Your task to perform on an android device: Go to CNN.com Image 0: 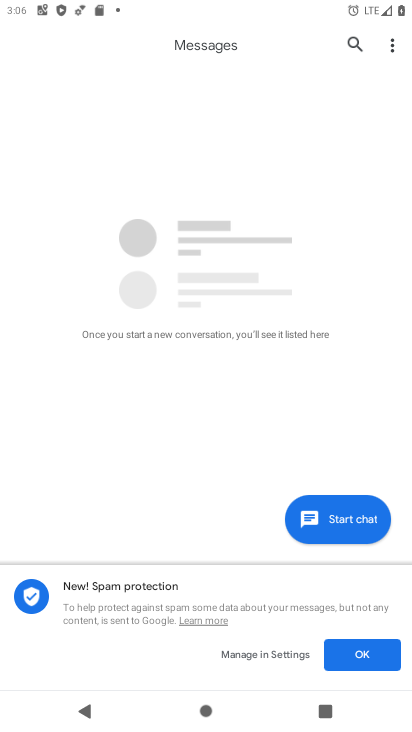
Step 0: press home button
Your task to perform on an android device: Go to CNN.com Image 1: 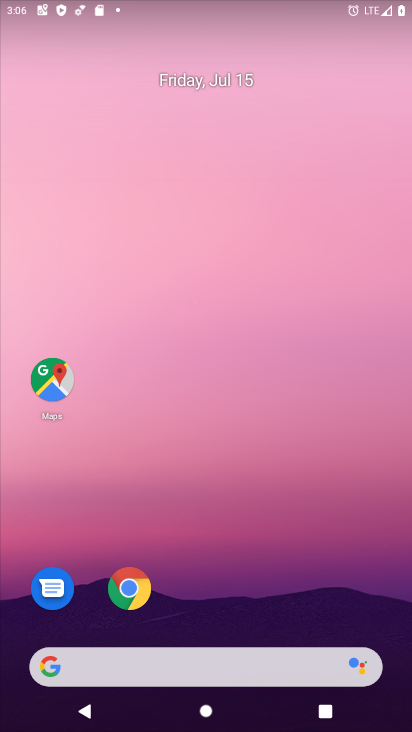
Step 1: click (130, 590)
Your task to perform on an android device: Go to CNN.com Image 2: 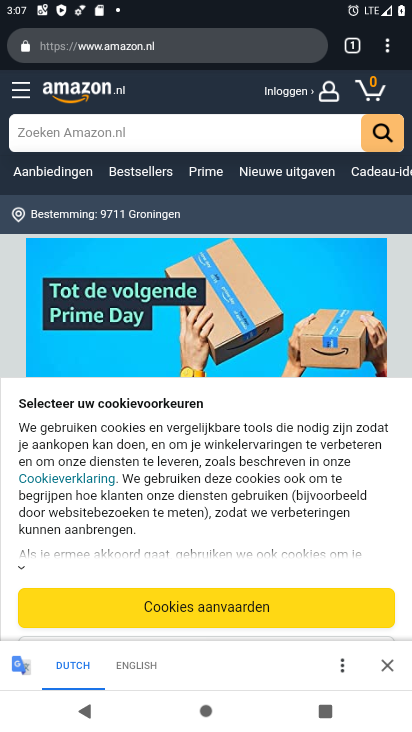
Step 2: click (188, 40)
Your task to perform on an android device: Go to CNN.com Image 3: 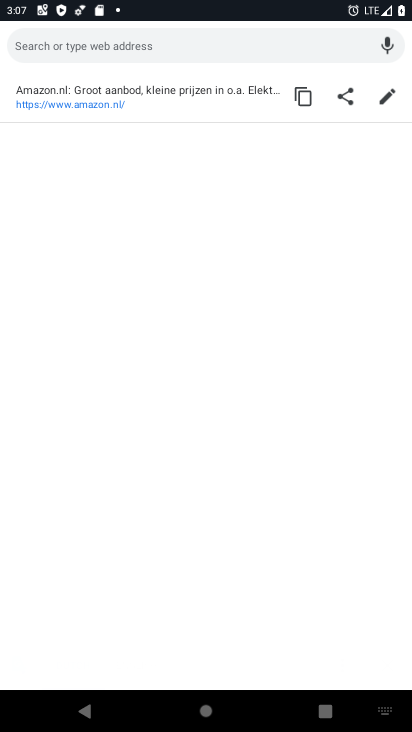
Step 3: type "CNN.com"
Your task to perform on an android device: Go to CNN.com Image 4: 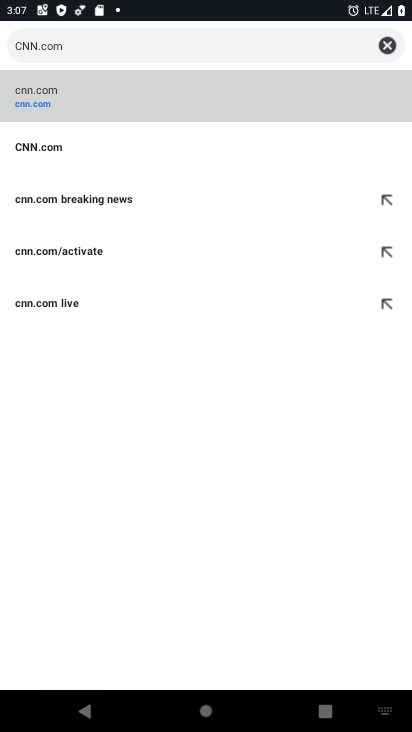
Step 4: click (46, 149)
Your task to perform on an android device: Go to CNN.com Image 5: 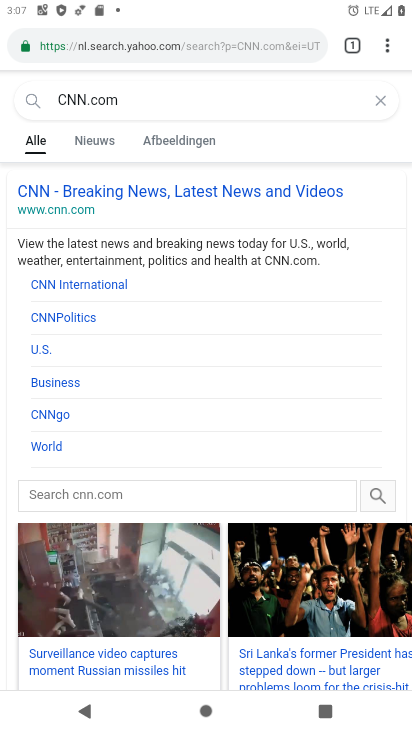
Step 5: click (69, 191)
Your task to perform on an android device: Go to CNN.com Image 6: 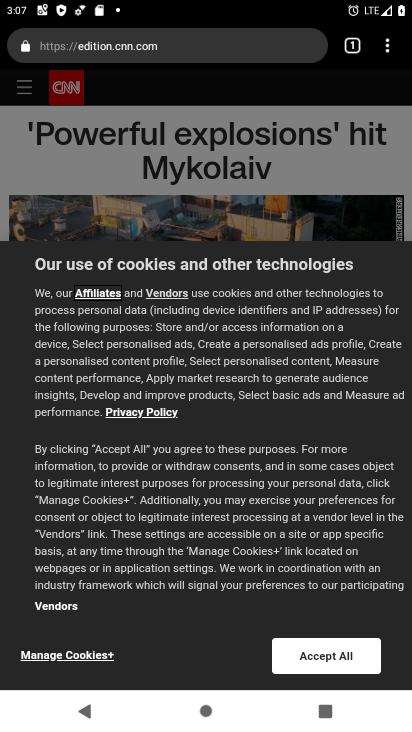
Step 6: click (317, 655)
Your task to perform on an android device: Go to CNN.com Image 7: 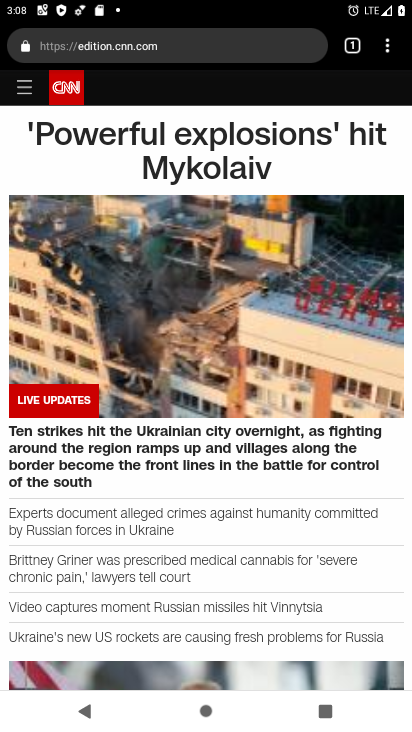
Step 7: task complete